Your task to perform on an android device: What's the price of the new iPhone on eBay? Image 0: 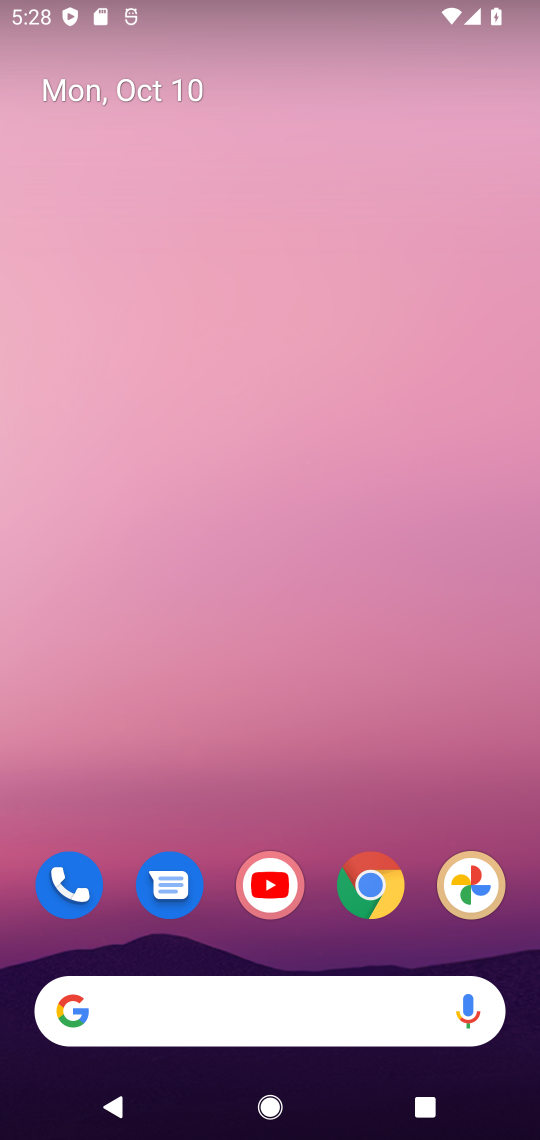
Step 0: click (377, 881)
Your task to perform on an android device: What's the price of the new iPhone on eBay? Image 1: 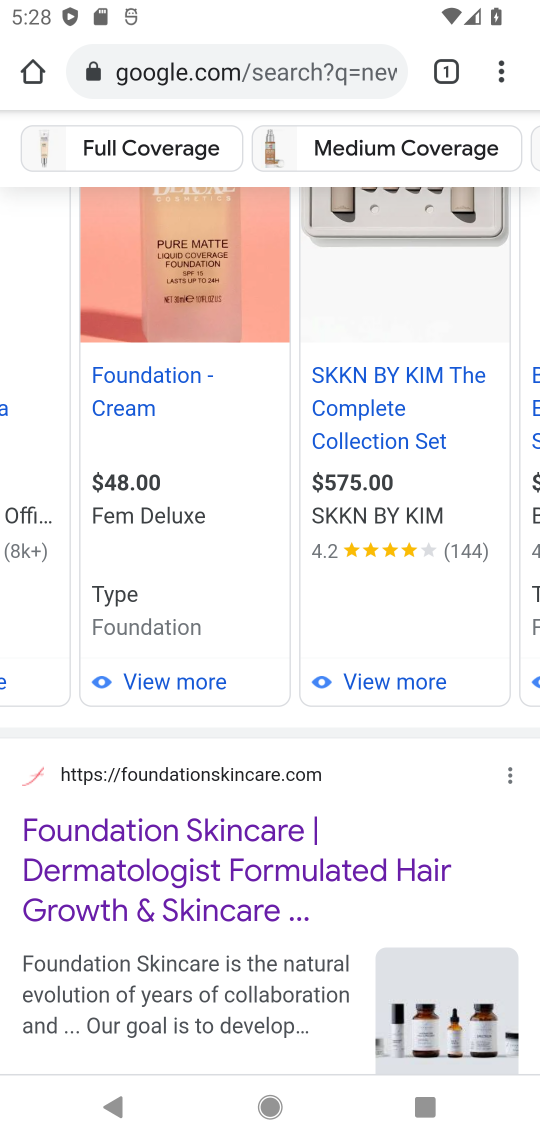
Step 1: click (289, 70)
Your task to perform on an android device: What's the price of the new iPhone on eBay? Image 2: 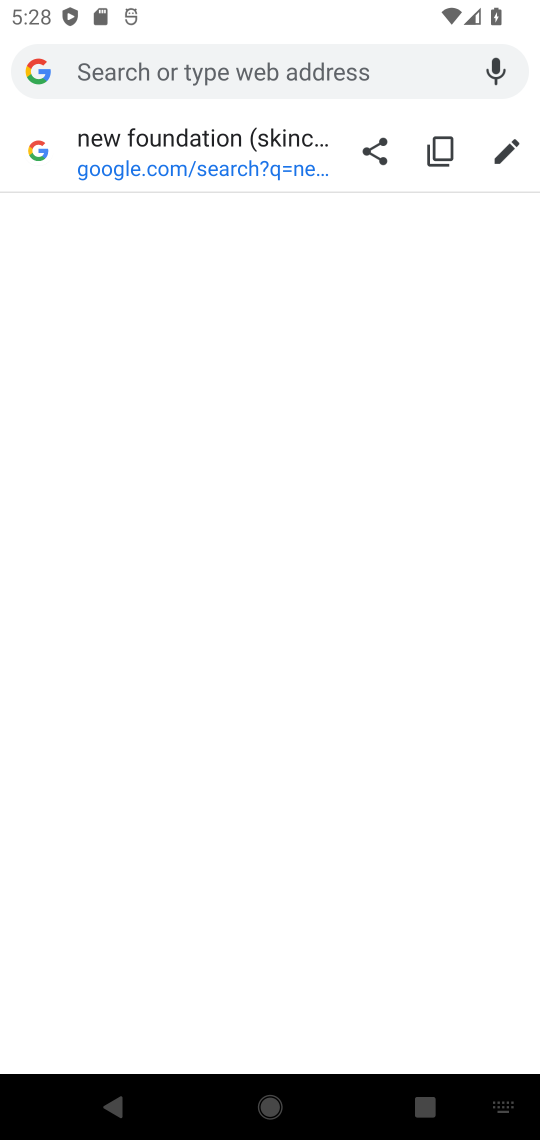
Step 2: type "price of the new iPhone on eBay"
Your task to perform on an android device: What's the price of the new iPhone on eBay? Image 3: 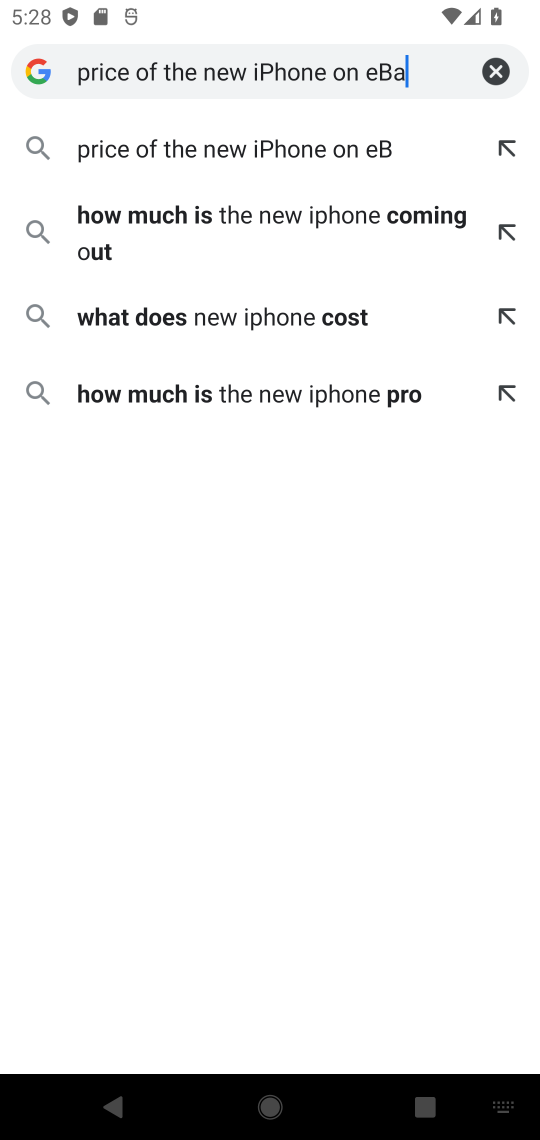
Step 3: type ""
Your task to perform on an android device: What's the price of the new iPhone on eBay? Image 4: 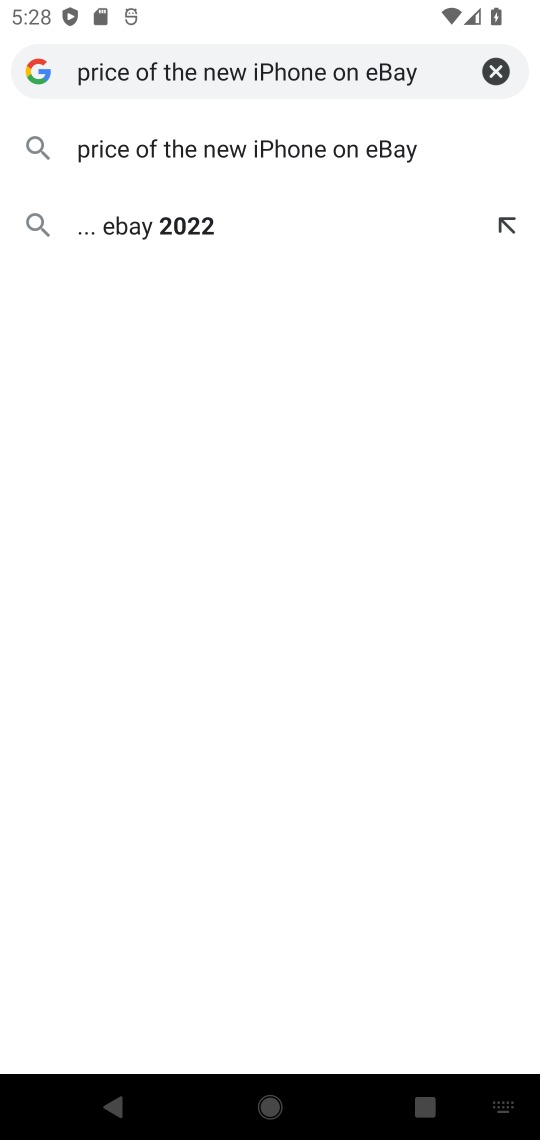
Step 4: click (413, 160)
Your task to perform on an android device: What's the price of the new iPhone on eBay? Image 5: 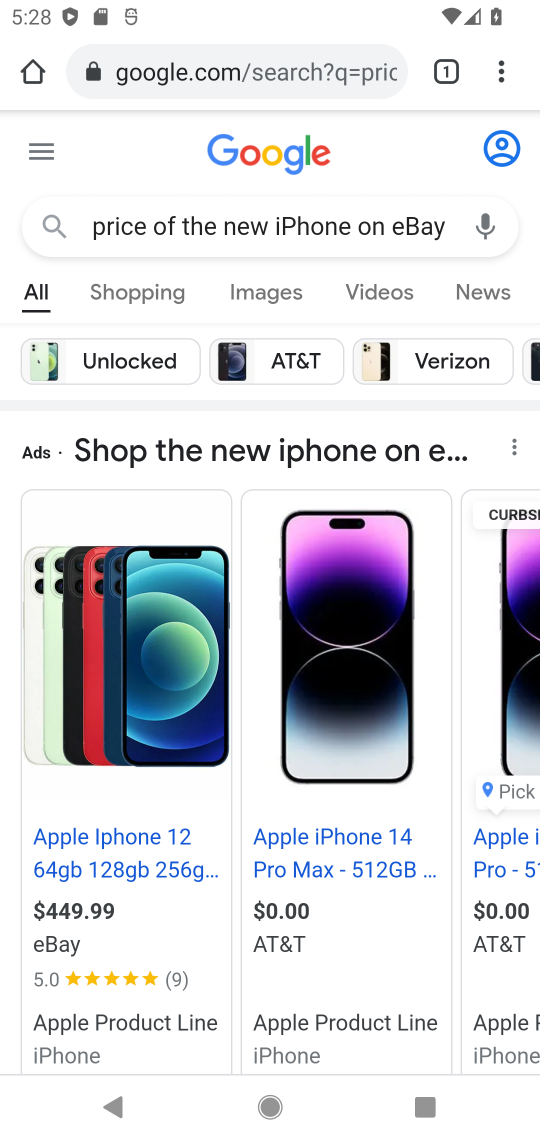
Step 5: drag from (362, 951) to (290, 481)
Your task to perform on an android device: What's the price of the new iPhone on eBay? Image 6: 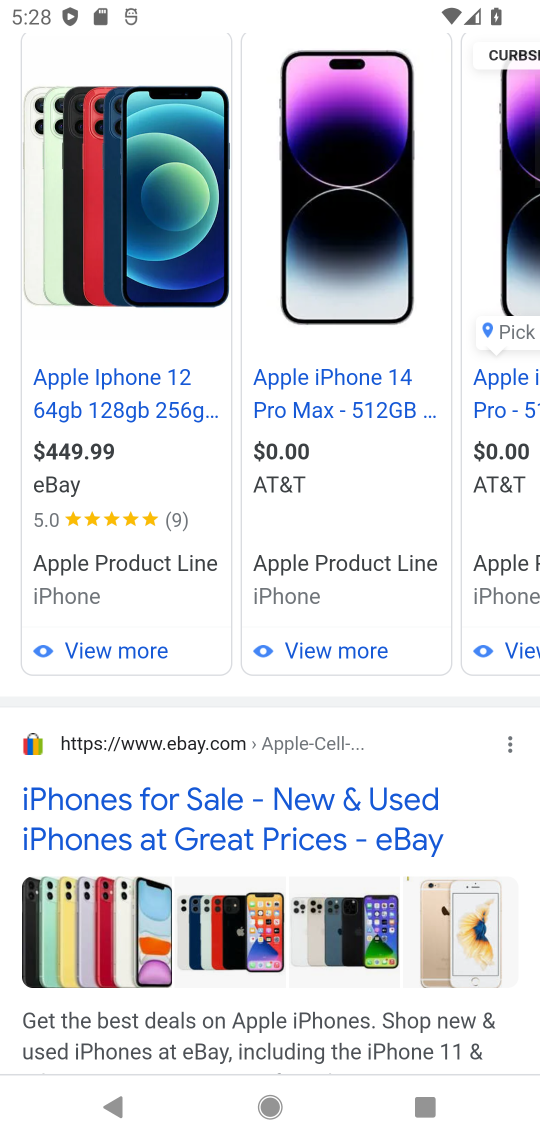
Step 6: click (308, 820)
Your task to perform on an android device: What's the price of the new iPhone on eBay? Image 7: 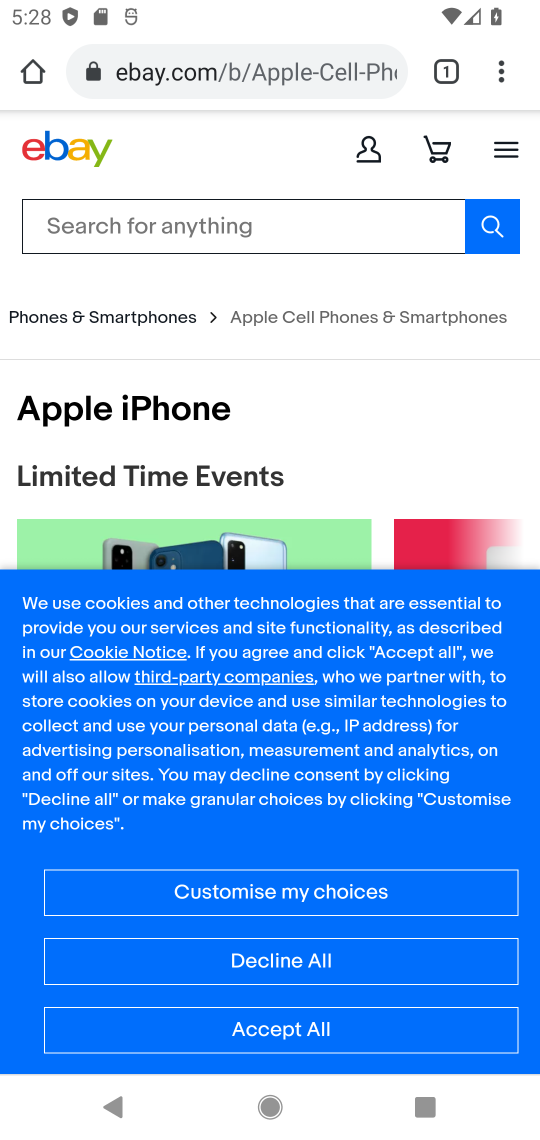
Step 7: click (287, 1030)
Your task to perform on an android device: What's the price of the new iPhone on eBay? Image 8: 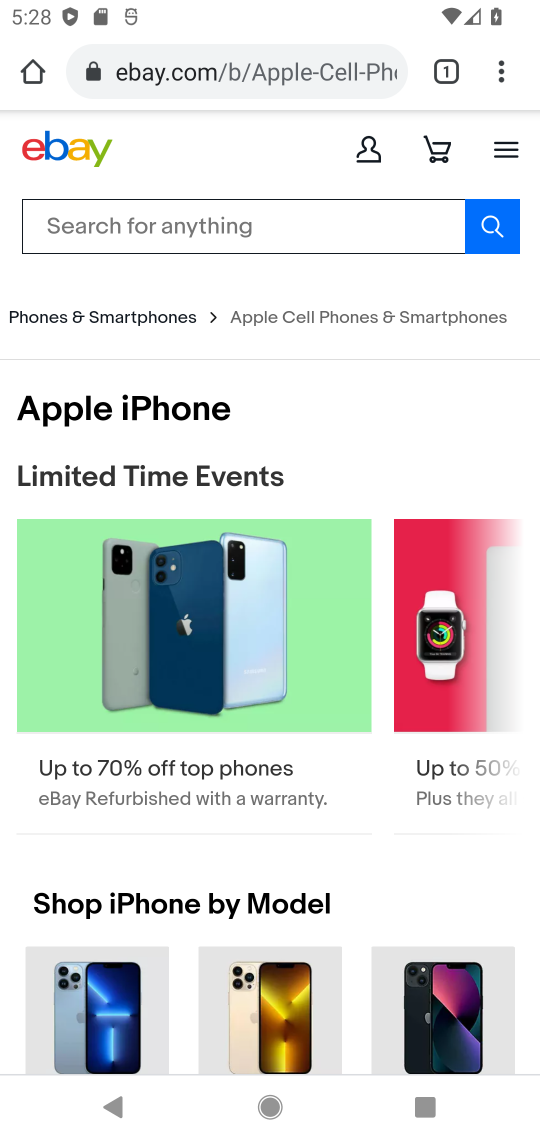
Step 8: drag from (424, 884) to (354, 514)
Your task to perform on an android device: What's the price of the new iPhone on eBay? Image 9: 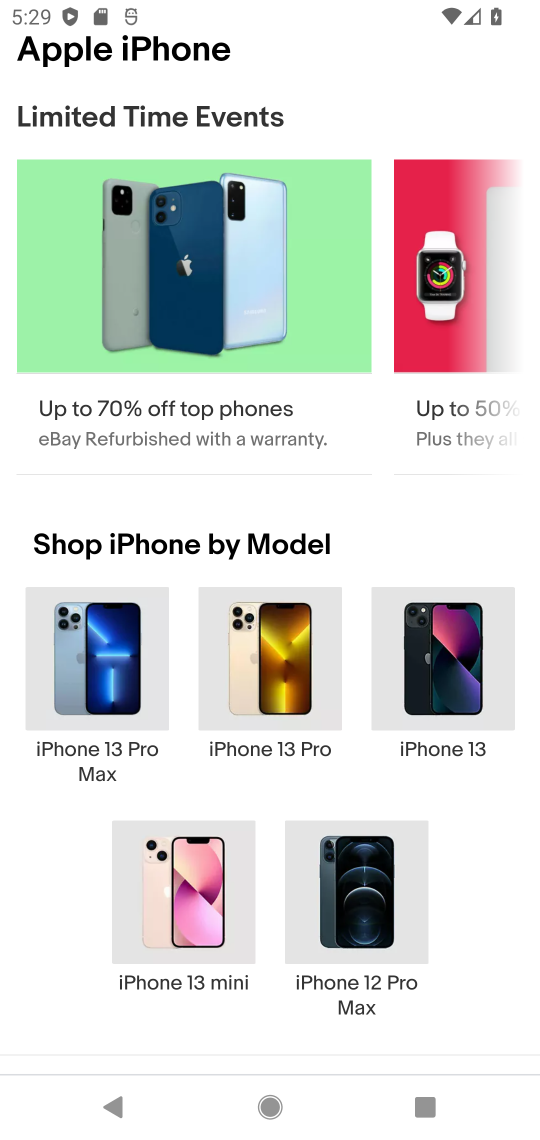
Step 9: click (109, 683)
Your task to perform on an android device: What's the price of the new iPhone on eBay? Image 10: 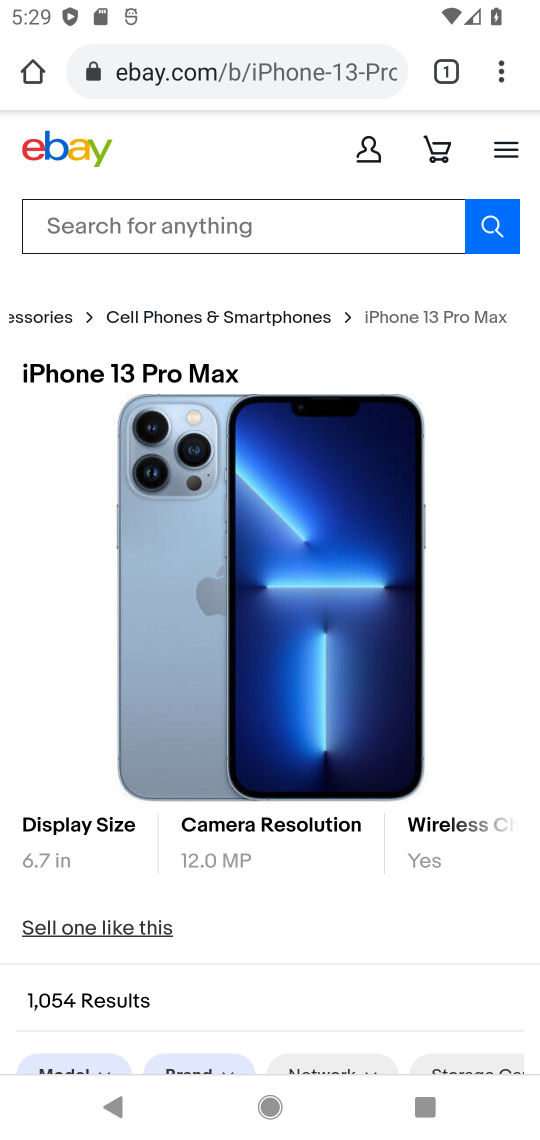
Step 10: task complete